Your task to perform on an android device: toggle notification dots Image 0: 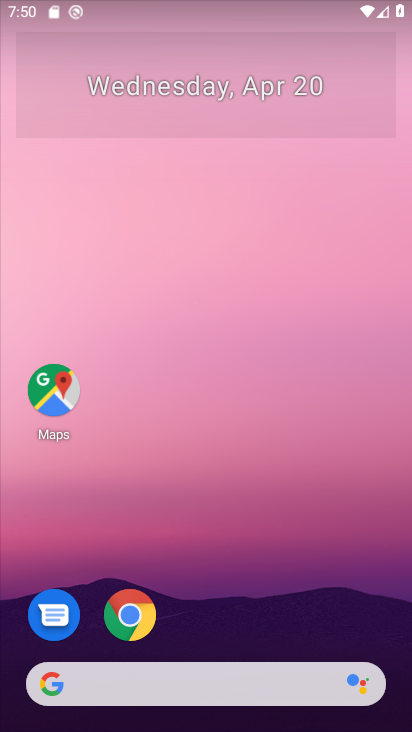
Step 0: drag from (192, 619) to (266, 9)
Your task to perform on an android device: toggle notification dots Image 1: 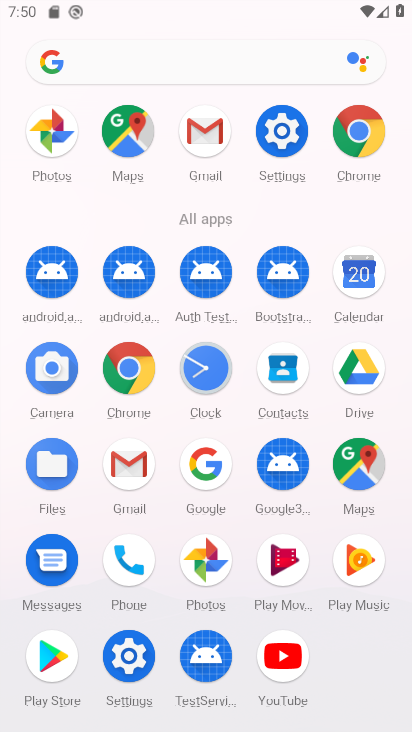
Step 1: click (273, 141)
Your task to perform on an android device: toggle notification dots Image 2: 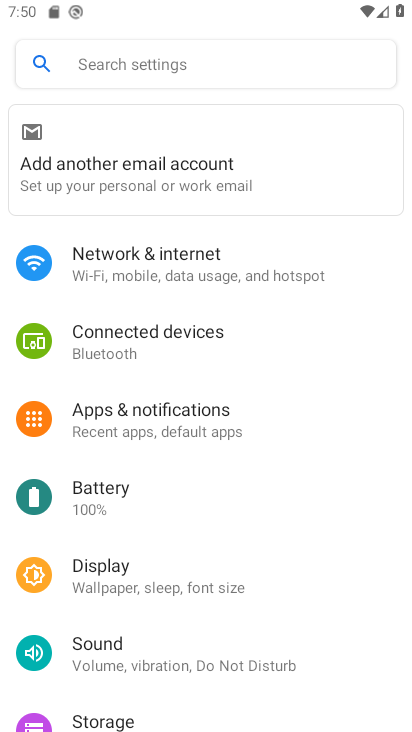
Step 2: click (171, 417)
Your task to perform on an android device: toggle notification dots Image 3: 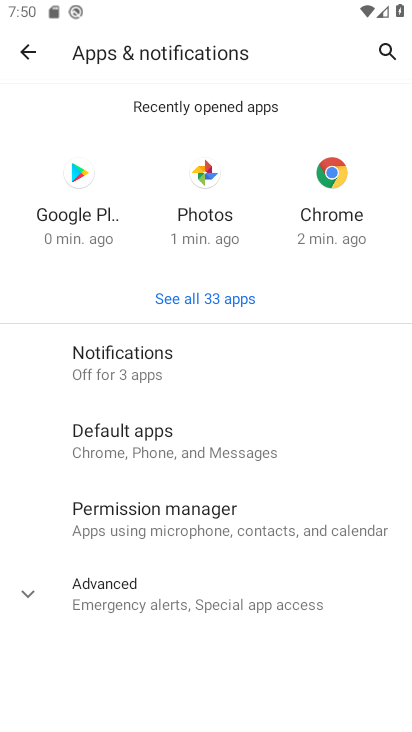
Step 3: click (119, 372)
Your task to perform on an android device: toggle notification dots Image 4: 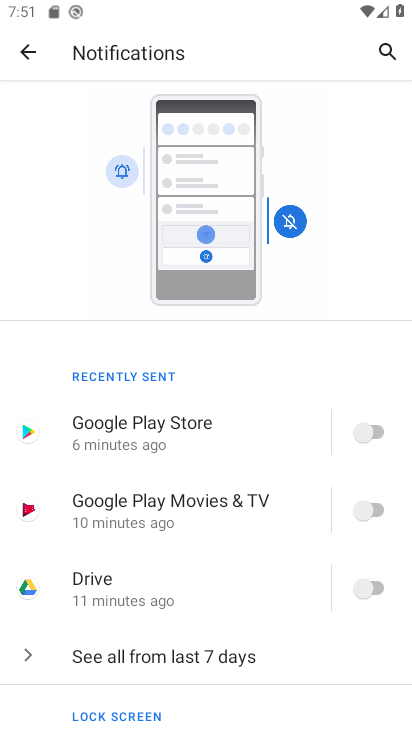
Step 4: drag from (173, 632) to (219, 220)
Your task to perform on an android device: toggle notification dots Image 5: 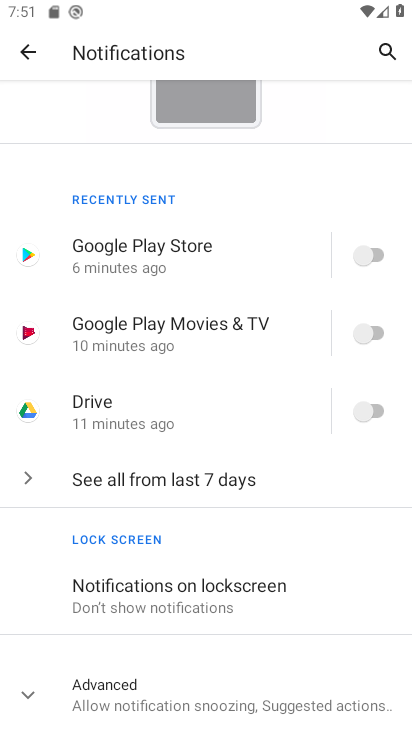
Step 5: click (142, 699)
Your task to perform on an android device: toggle notification dots Image 6: 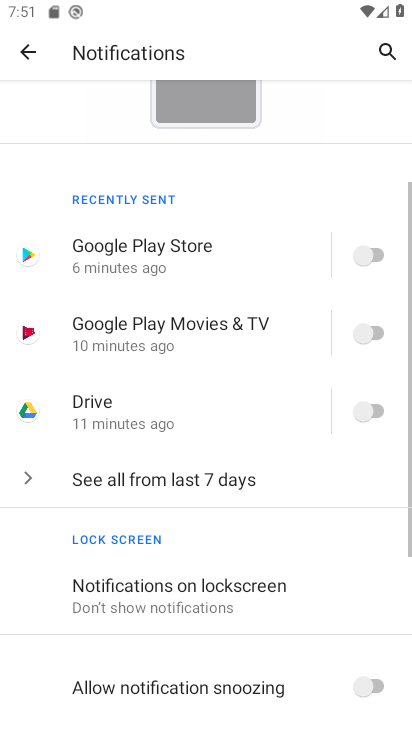
Step 6: drag from (164, 643) to (233, 272)
Your task to perform on an android device: toggle notification dots Image 7: 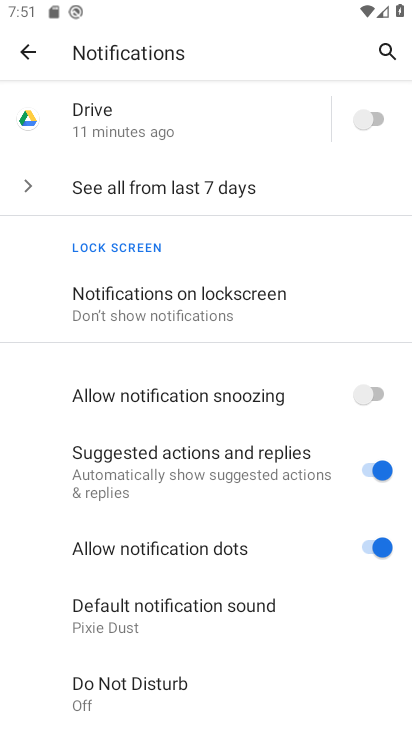
Step 7: click (355, 535)
Your task to perform on an android device: toggle notification dots Image 8: 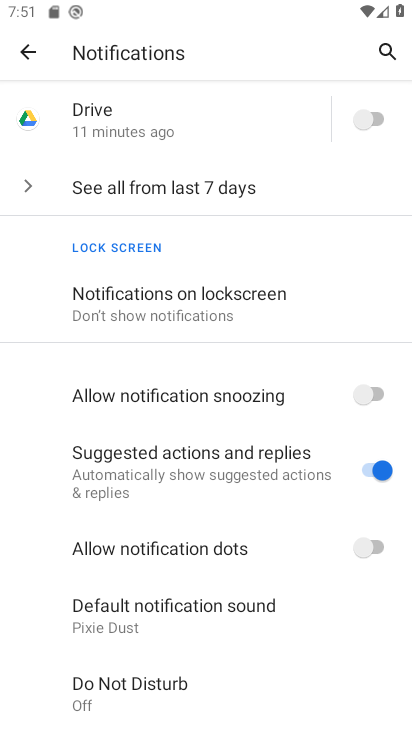
Step 8: task complete